Your task to perform on an android device: Search for "asus rog" on newegg.com, select the first entry, and add it to the cart. Image 0: 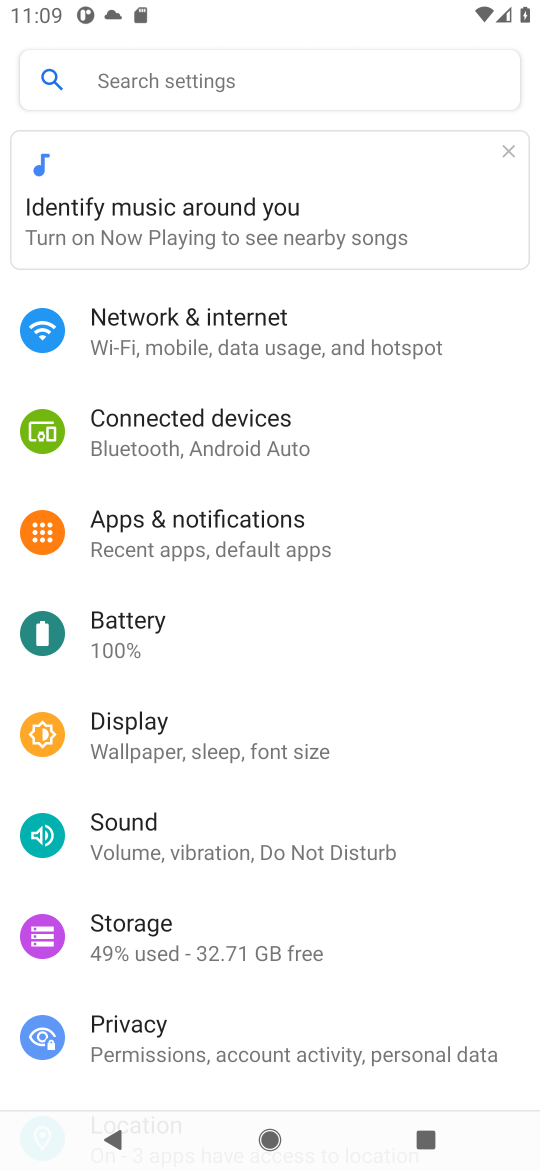
Step 0: press home button
Your task to perform on an android device: Search for "asus rog" on newegg.com, select the first entry, and add it to the cart. Image 1: 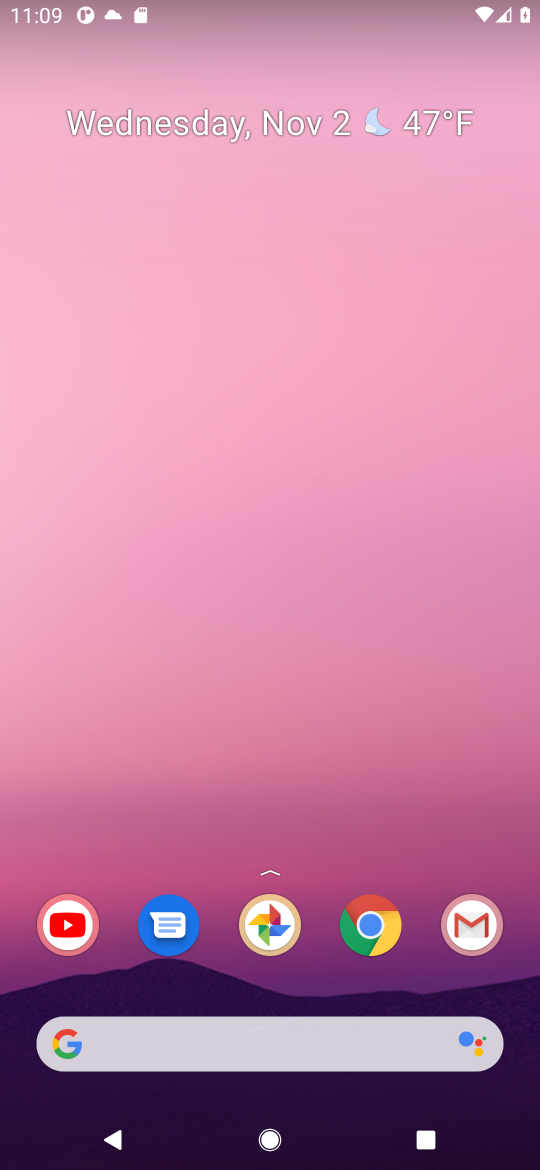
Step 1: click (379, 943)
Your task to perform on an android device: Search for "asus rog" on newegg.com, select the first entry, and add it to the cart. Image 2: 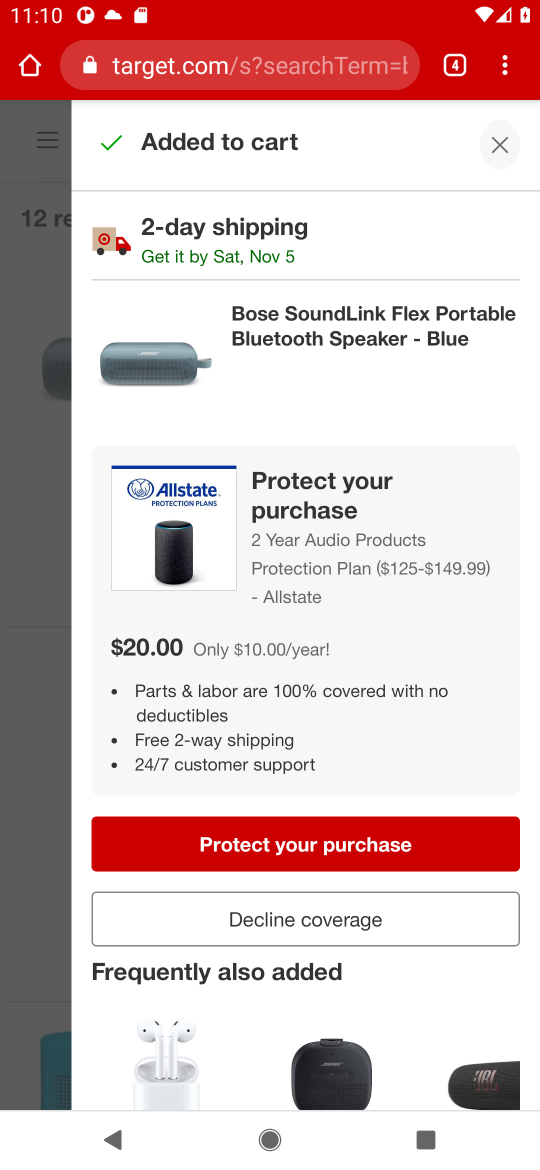
Step 2: click (446, 70)
Your task to perform on an android device: Search for "asus rog" on newegg.com, select the first entry, and add it to the cart. Image 3: 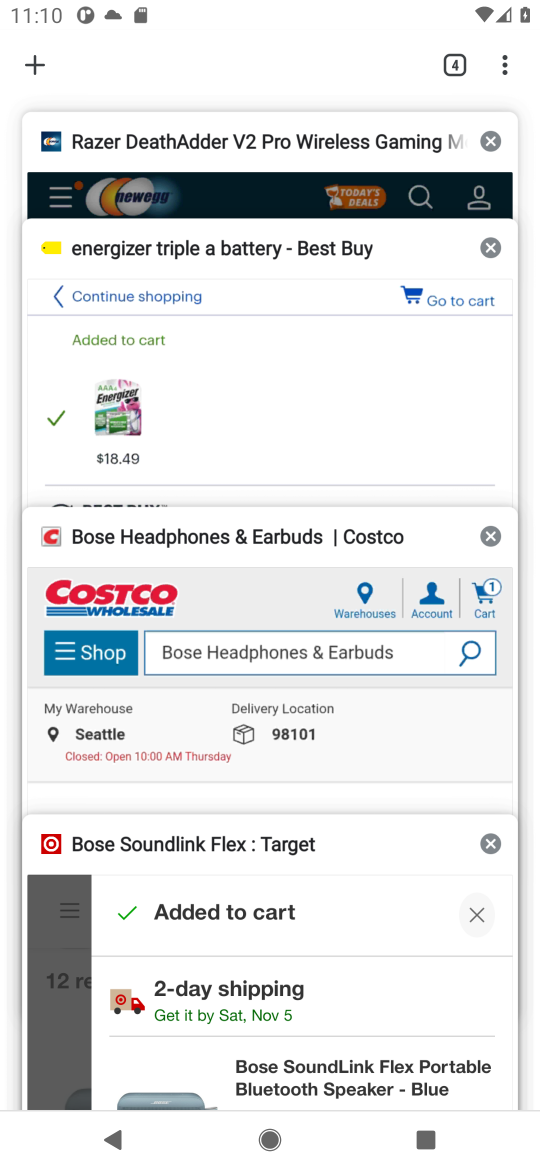
Step 3: click (359, 153)
Your task to perform on an android device: Search for "asus rog" on newegg.com, select the first entry, and add it to the cart. Image 4: 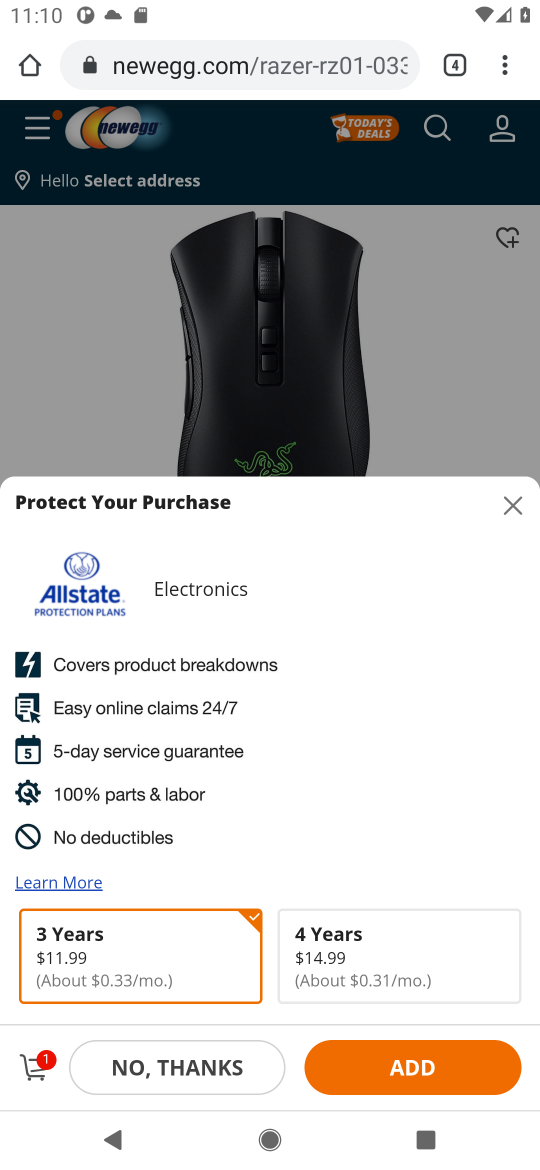
Step 4: click (513, 506)
Your task to perform on an android device: Search for "asus rog" on newegg.com, select the first entry, and add it to the cart. Image 5: 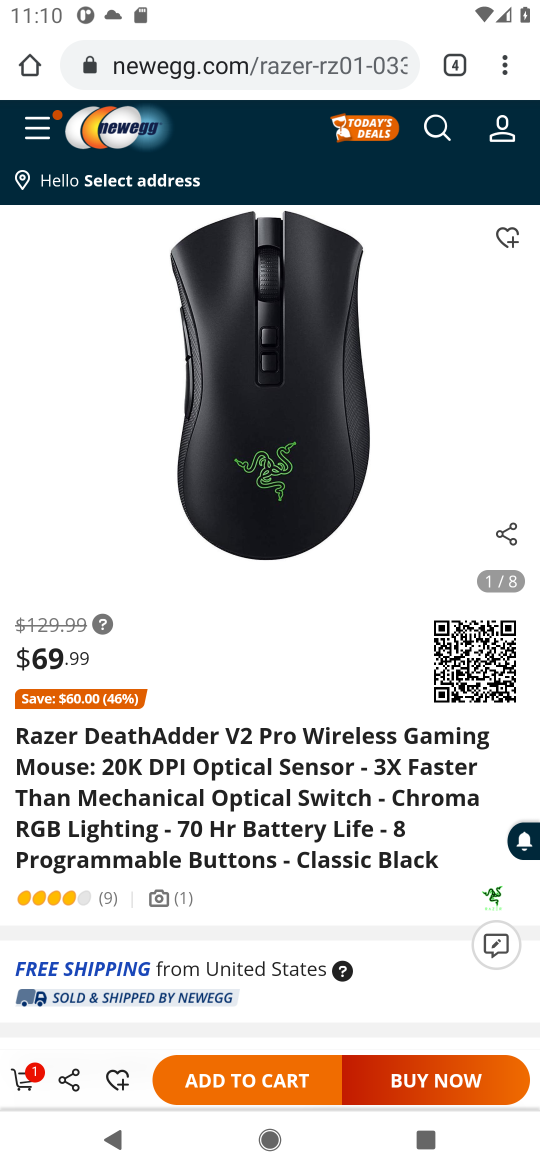
Step 5: click (440, 128)
Your task to perform on an android device: Search for "asus rog" on newegg.com, select the first entry, and add it to the cart. Image 6: 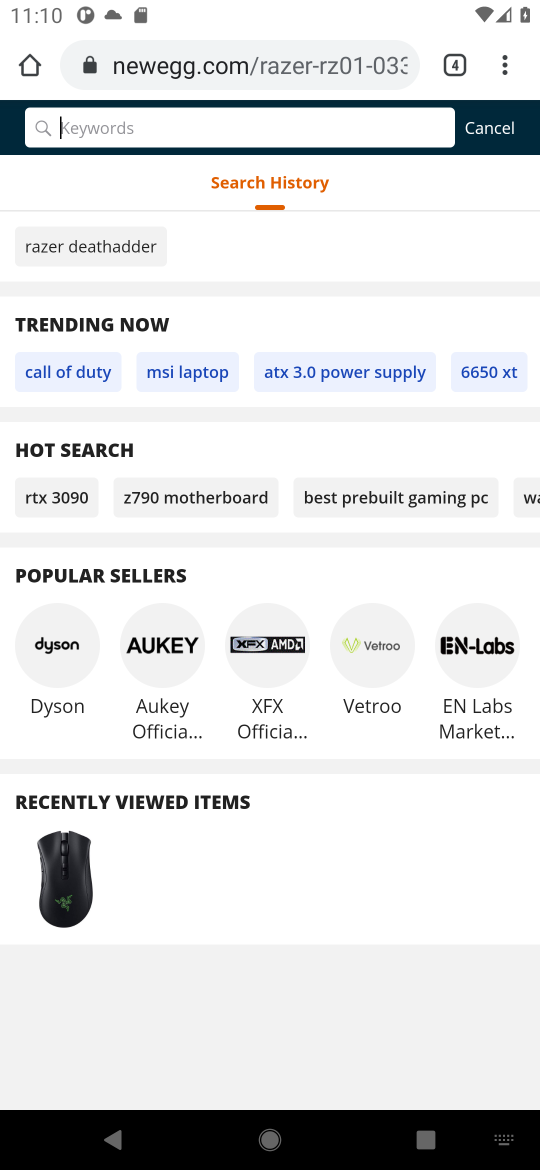
Step 6: type "asus rog"
Your task to perform on an android device: Search for "asus rog" on newegg.com, select the first entry, and add it to the cart. Image 7: 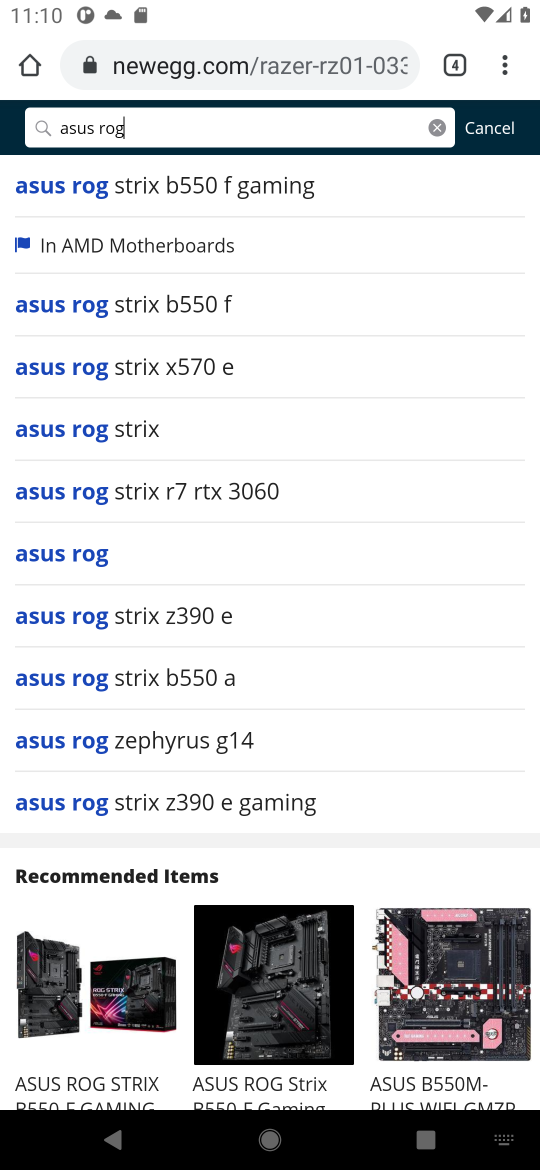
Step 7: click (178, 192)
Your task to perform on an android device: Search for "asus rog" on newegg.com, select the first entry, and add it to the cart. Image 8: 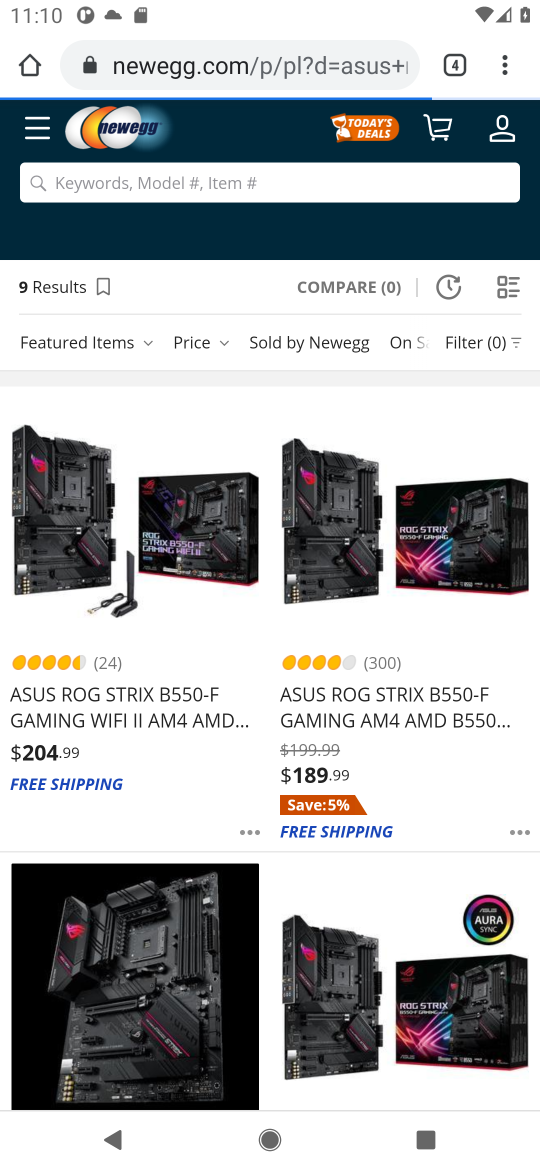
Step 8: click (178, 192)
Your task to perform on an android device: Search for "asus rog" on newegg.com, select the first entry, and add it to the cart. Image 9: 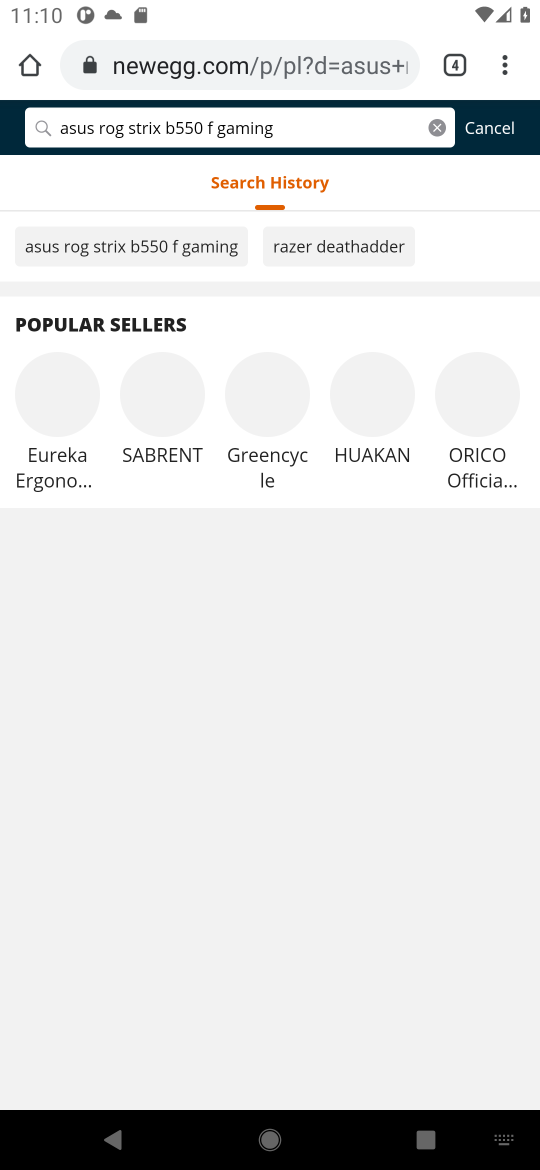
Step 9: click (55, 844)
Your task to perform on an android device: Search for "asus rog" on newegg.com, select the first entry, and add it to the cart. Image 10: 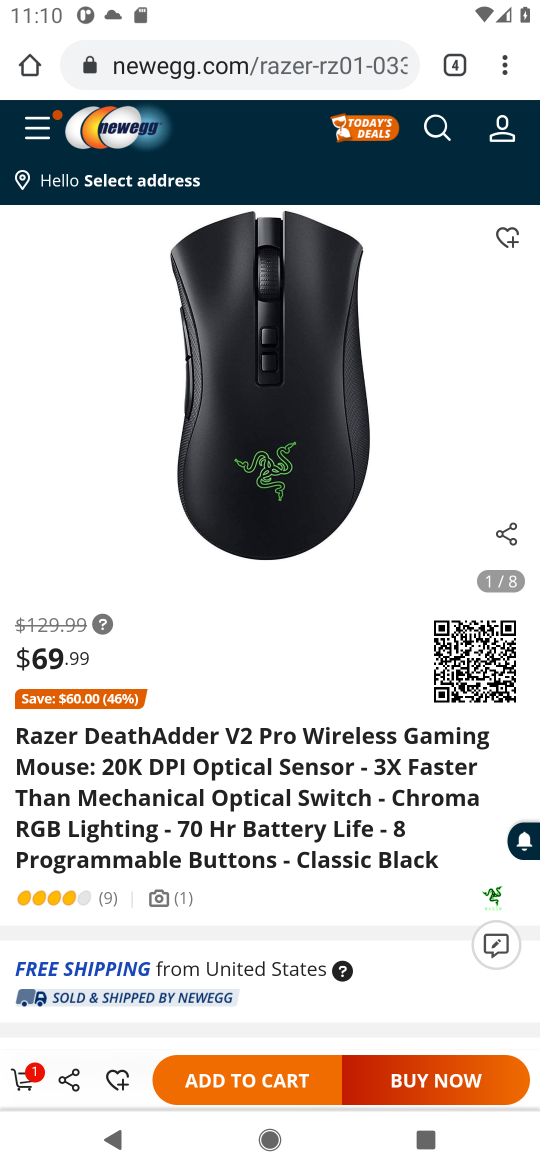
Step 10: click (439, 127)
Your task to perform on an android device: Search for "asus rog" on newegg.com, select the first entry, and add it to the cart. Image 11: 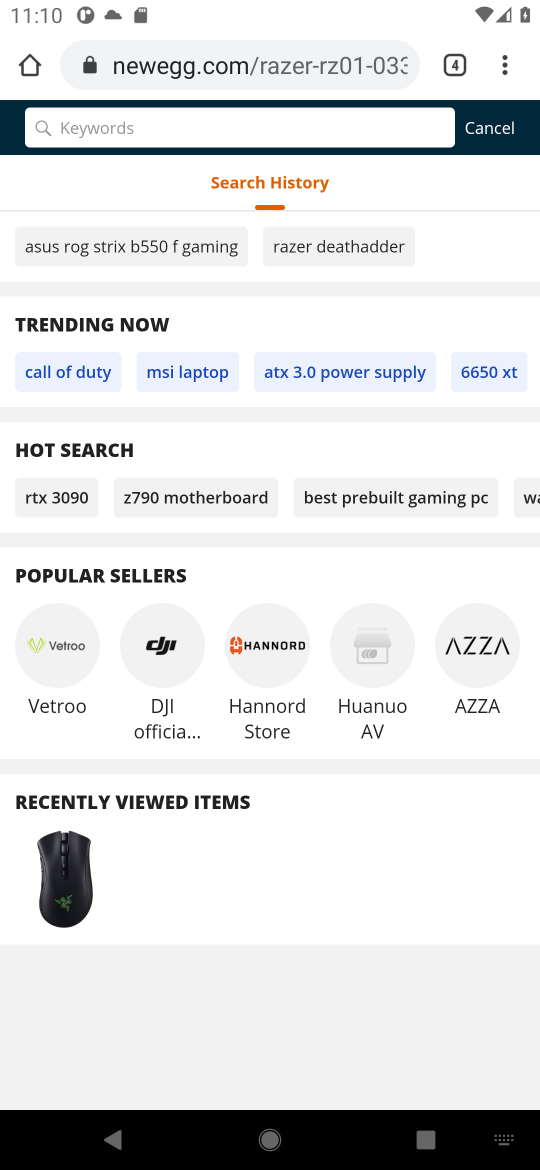
Step 11: type "asus rog"
Your task to perform on an android device: Search for "asus rog" on newegg.com, select the first entry, and add it to the cart. Image 12: 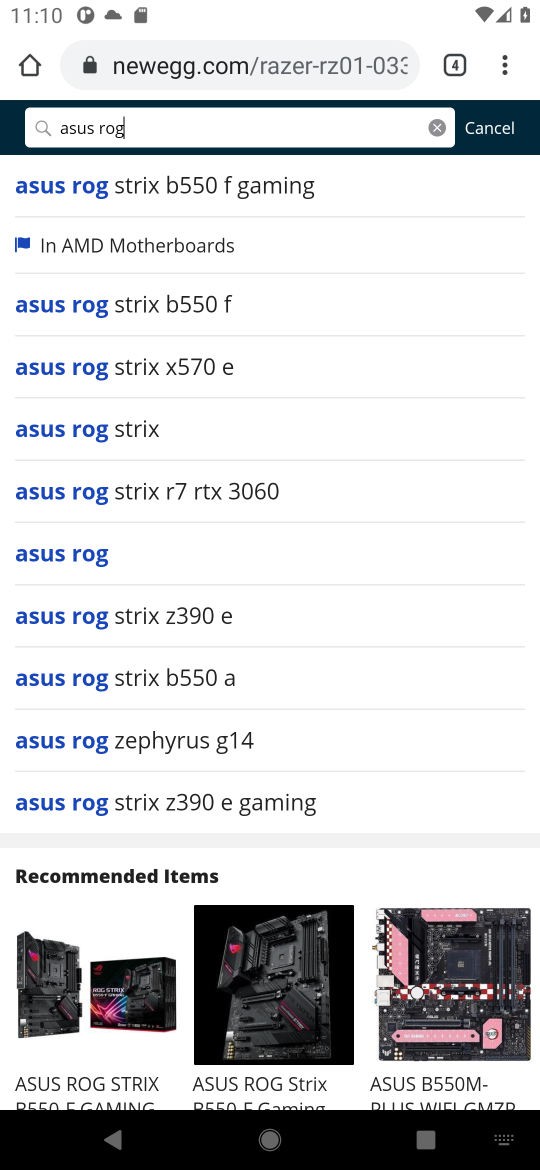
Step 12: click (196, 188)
Your task to perform on an android device: Search for "asus rog" on newegg.com, select the first entry, and add it to the cart. Image 13: 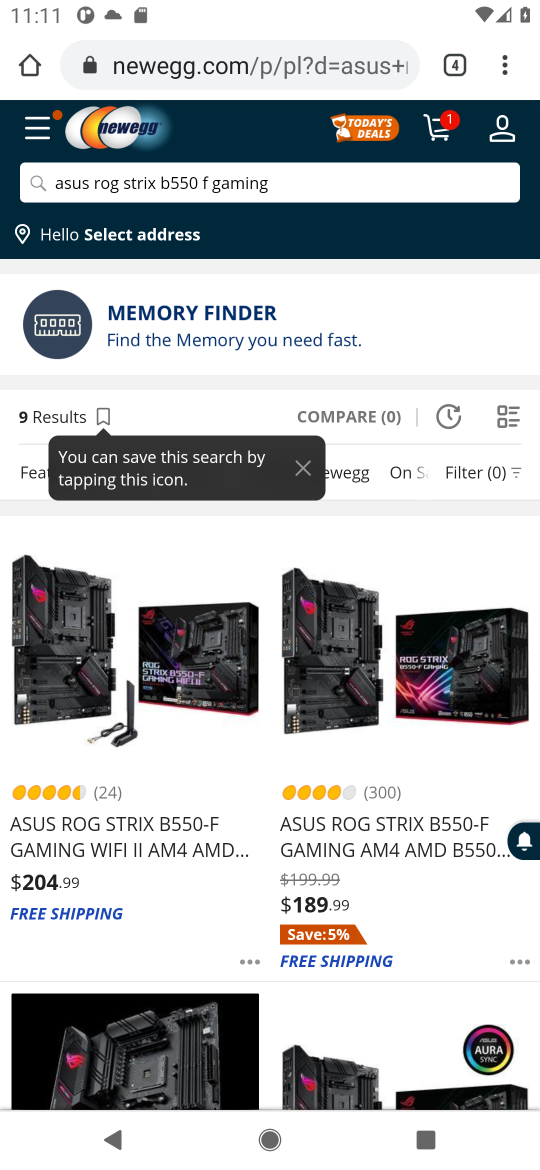
Step 13: click (87, 824)
Your task to perform on an android device: Search for "asus rog" on newegg.com, select the first entry, and add it to the cart. Image 14: 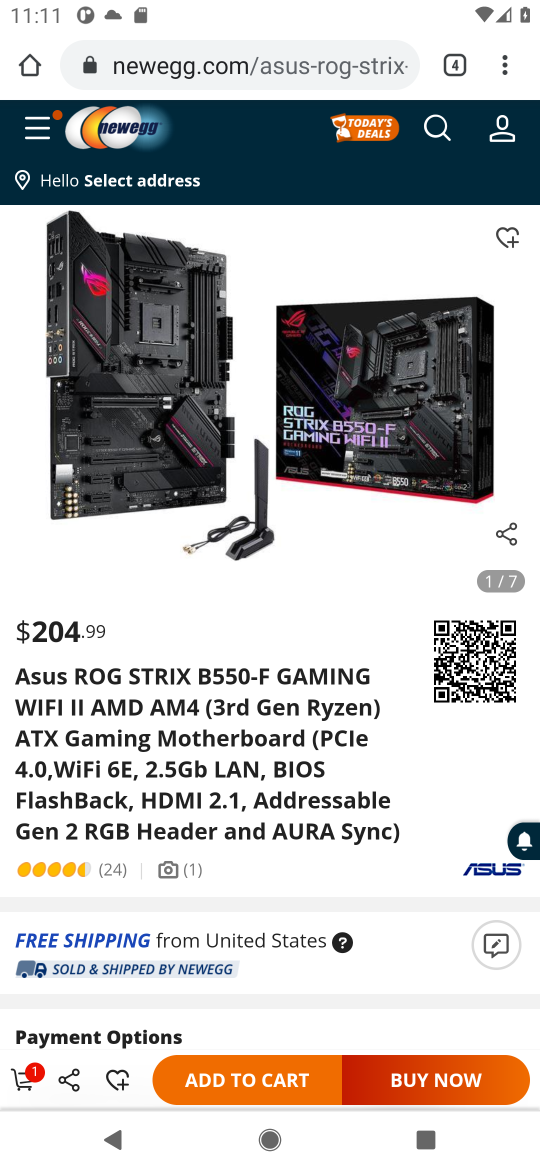
Step 14: click (241, 1069)
Your task to perform on an android device: Search for "asus rog" on newegg.com, select the first entry, and add it to the cart. Image 15: 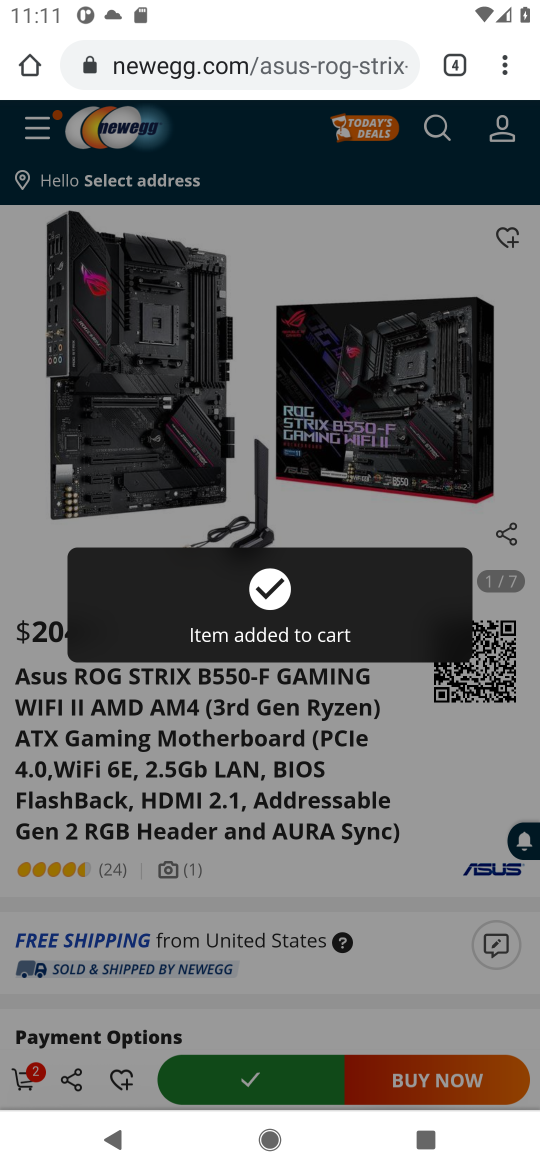
Step 15: task complete